Your task to perform on an android device: turn on javascript in the chrome app Image 0: 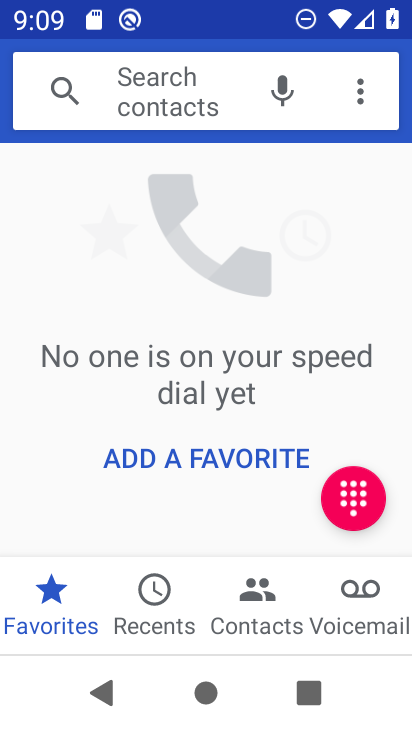
Step 0: press home button
Your task to perform on an android device: turn on javascript in the chrome app Image 1: 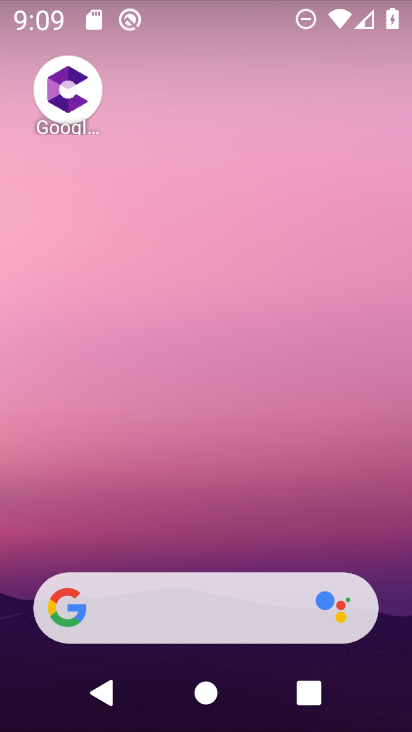
Step 1: drag from (222, 516) to (203, 5)
Your task to perform on an android device: turn on javascript in the chrome app Image 2: 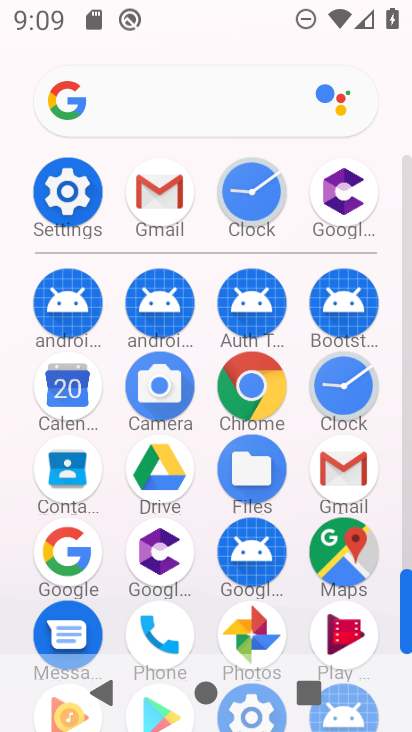
Step 2: click (249, 388)
Your task to perform on an android device: turn on javascript in the chrome app Image 3: 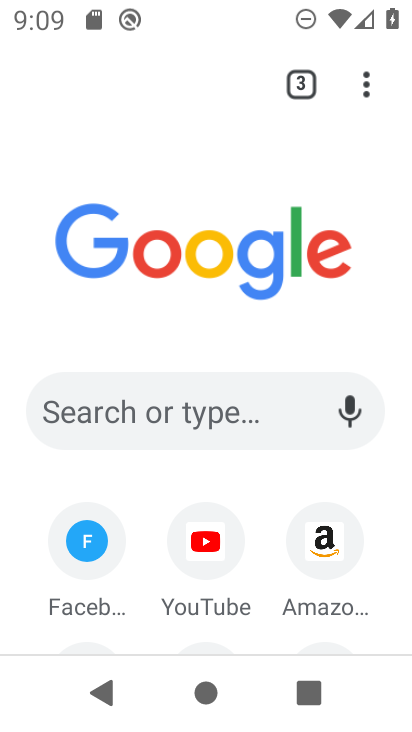
Step 3: click (362, 86)
Your task to perform on an android device: turn on javascript in the chrome app Image 4: 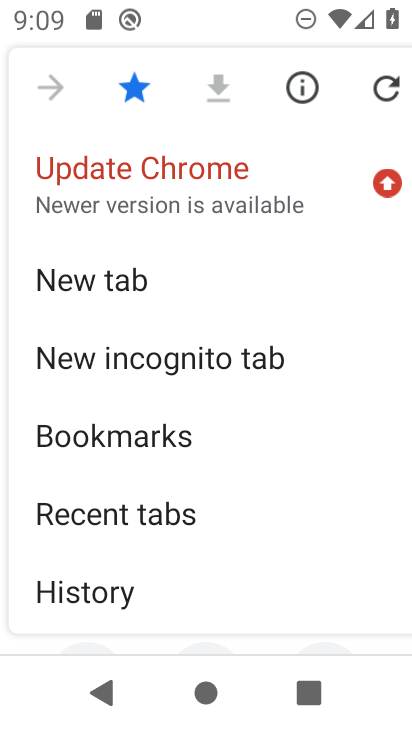
Step 4: drag from (261, 602) to (234, 145)
Your task to perform on an android device: turn on javascript in the chrome app Image 5: 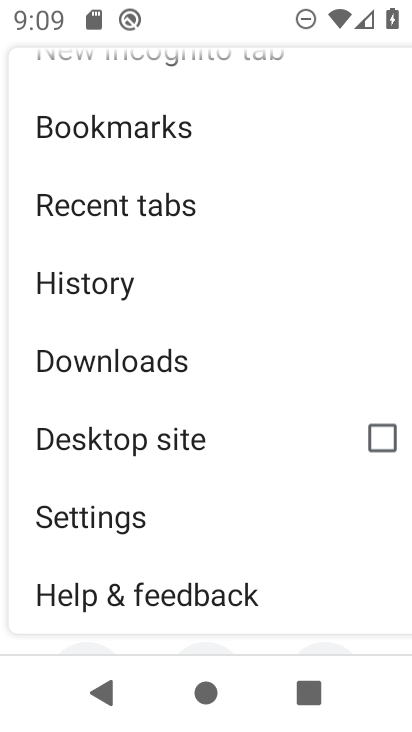
Step 5: click (122, 509)
Your task to perform on an android device: turn on javascript in the chrome app Image 6: 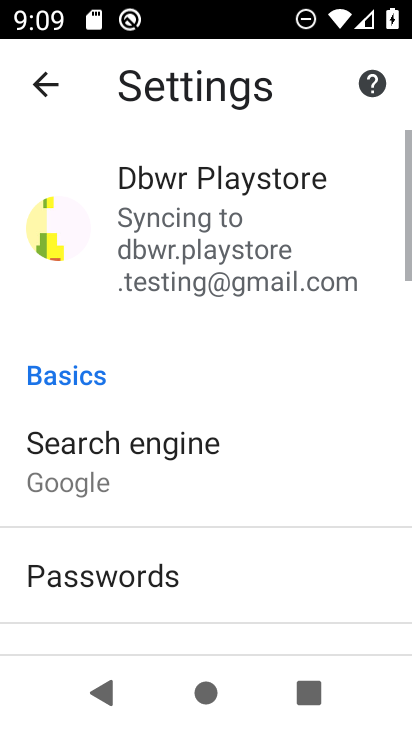
Step 6: drag from (128, 509) to (165, 68)
Your task to perform on an android device: turn on javascript in the chrome app Image 7: 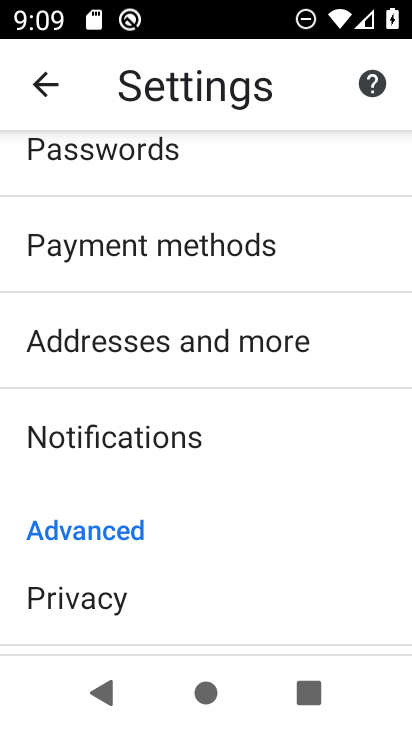
Step 7: drag from (176, 599) to (201, 235)
Your task to perform on an android device: turn on javascript in the chrome app Image 8: 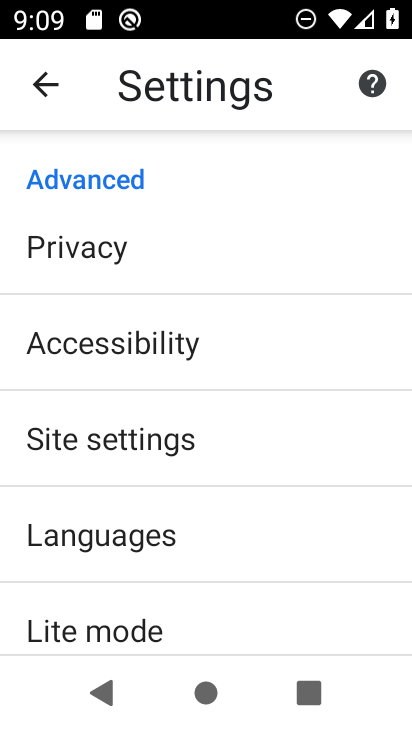
Step 8: click (127, 439)
Your task to perform on an android device: turn on javascript in the chrome app Image 9: 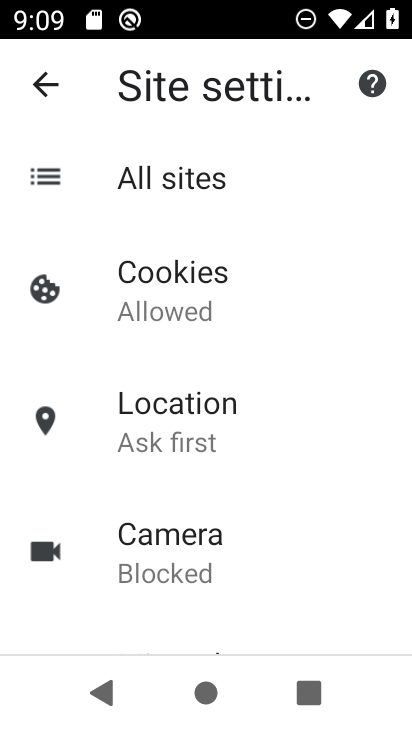
Step 9: drag from (289, 578) to (278, 146)
Your task to perform on an android device: turn on javascript in the chrome app Image 10: 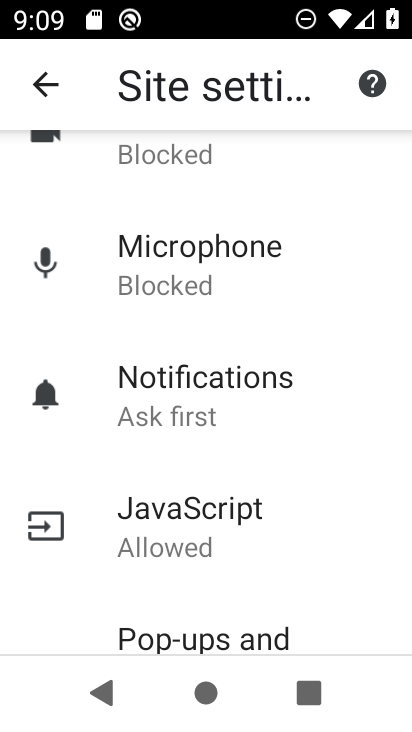
Step 10: click (172, 530)
Your task to perform on an android device: turn on javascript in the chrome app Image 11: 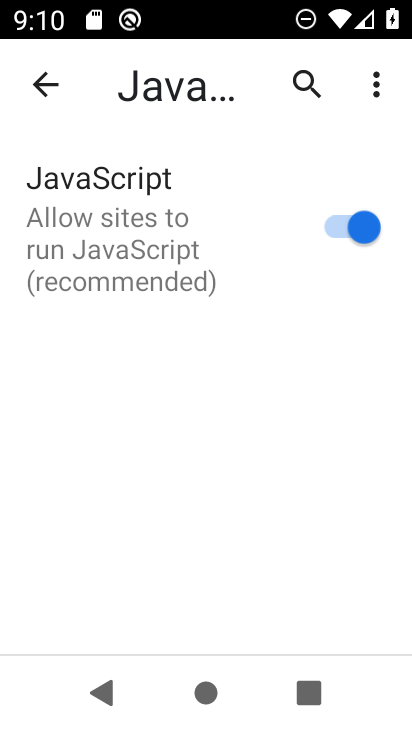
Step 11: task complete